Your task to perform on an android device: see creations saved in the google photos Image 0: 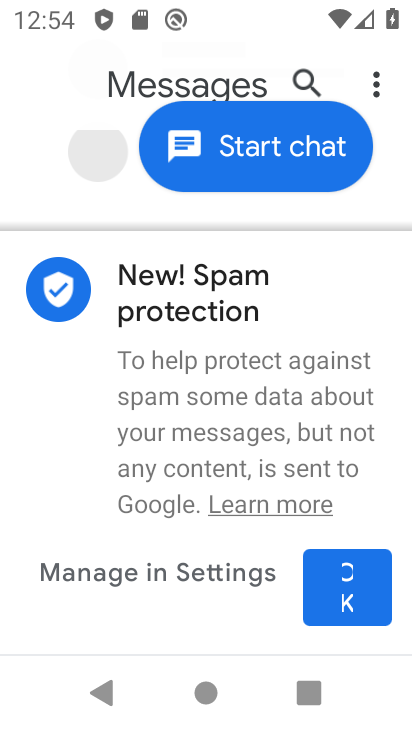
Step 0: press home button
Your task to perform on an android device: see creations saved in the google photos Image 1: 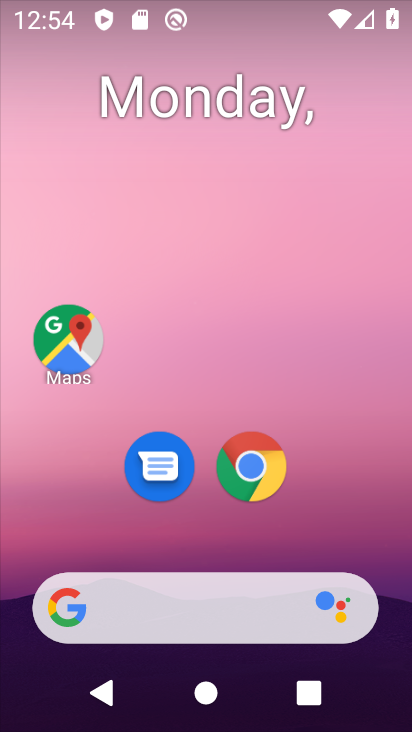
Step 1: drag from (199, 549) to (193, 10)
Your task to perform on an android device: see creations saved in the google photos Image 2: 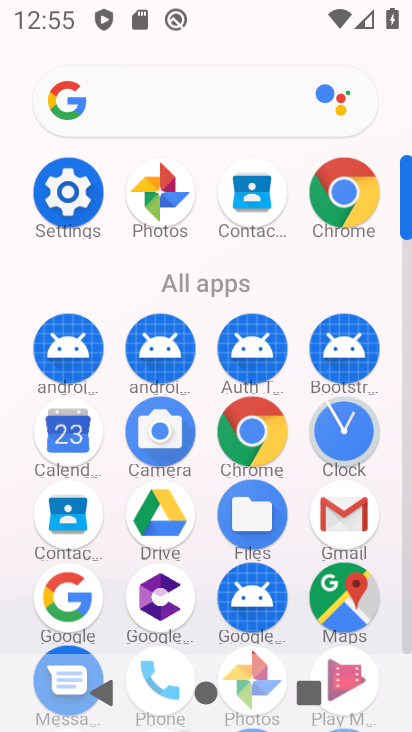
Step 2: drag from (210, 540) to (213, 410)
Your task to perform on an android device: see creations saved in the google photos Image 3: 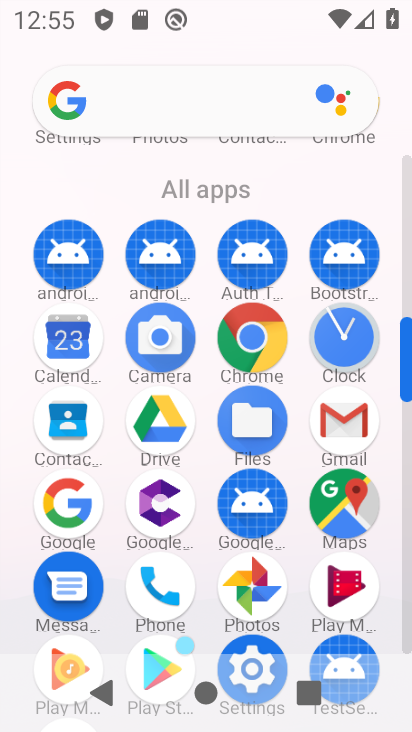
Step 3: click (258, 596)
Your task to perform on an android device: see creations saved in the google photos Image 4: 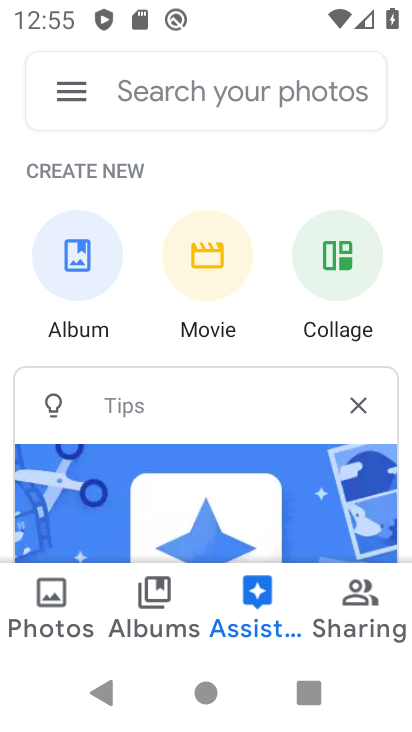
Step 4: click (151, 83)
Your task to perform on an android device: see creations saved in the google photos Image 5: 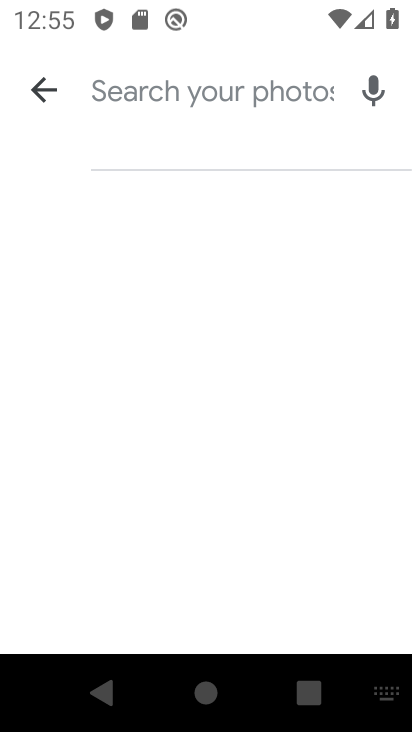
Step 5: type "creations"
Your task to perform on an android device: see creations saved in the google photos Image 6: 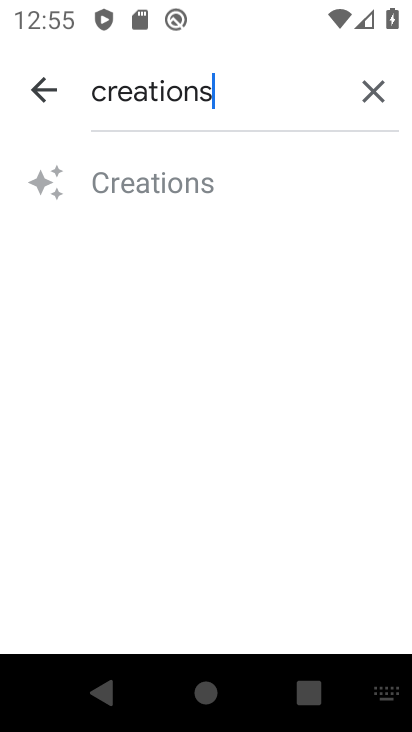
Step 6: click (164, 186)
Your task to perform on an android device: see creations saved in the google photos Image 7: 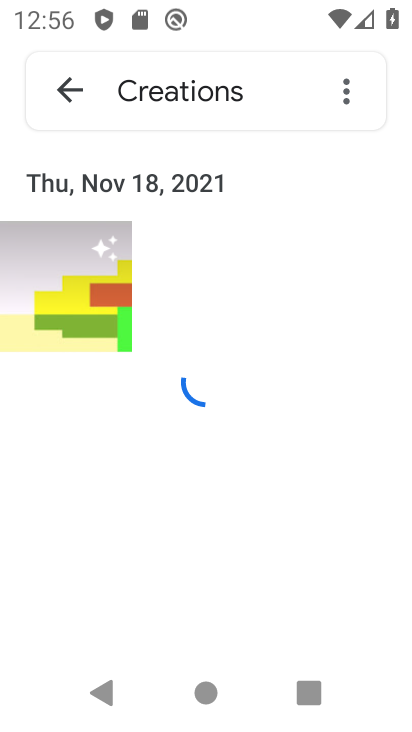
Step 7: task complete